Your task to perform on an android device: install app "Walmart Shopping & Grocery" Image 0: 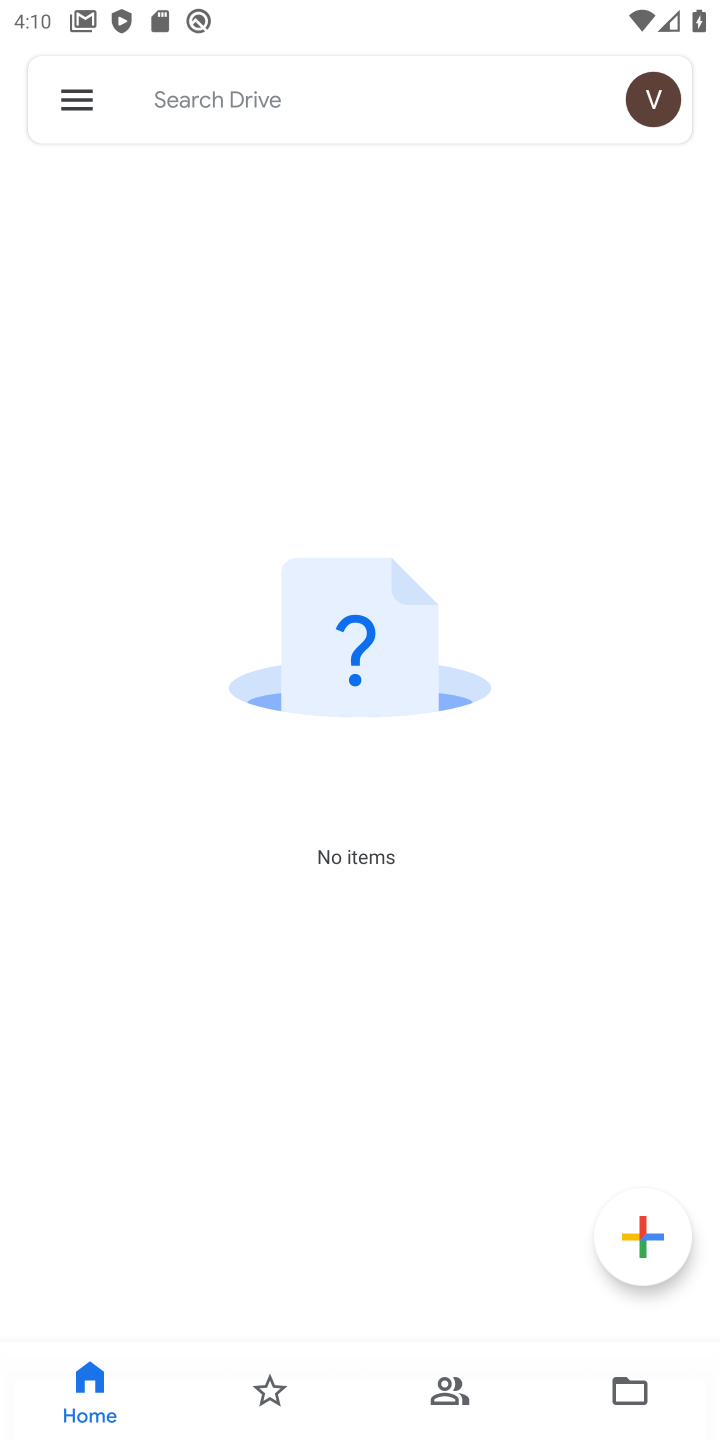
Step 0: press home button
Your task to perform on an android device: install app "Walmart Shopping & Grocery" Image 1: 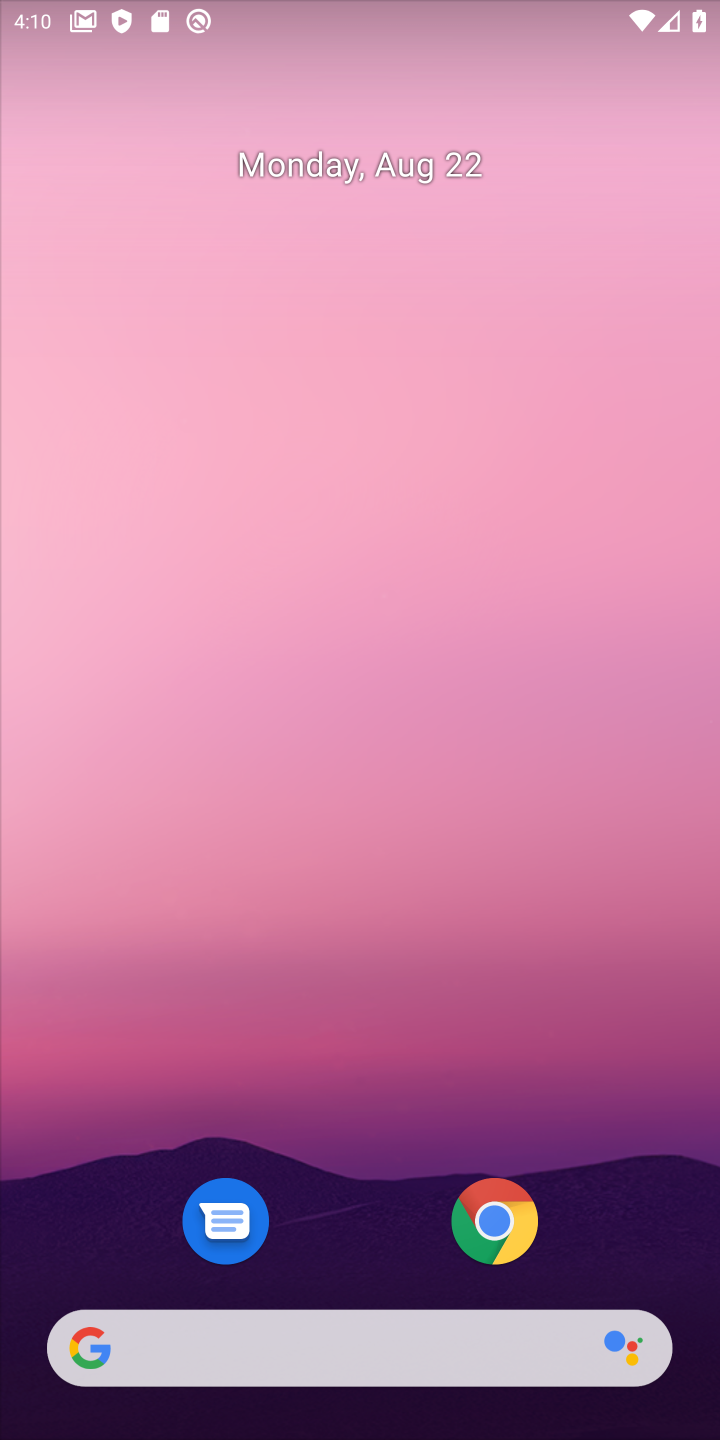
Step 1: drag from (422, 441) to (452, 225)
Your task to perform on an android device: install app "Walmart Shopping & Grocery" Image 2: 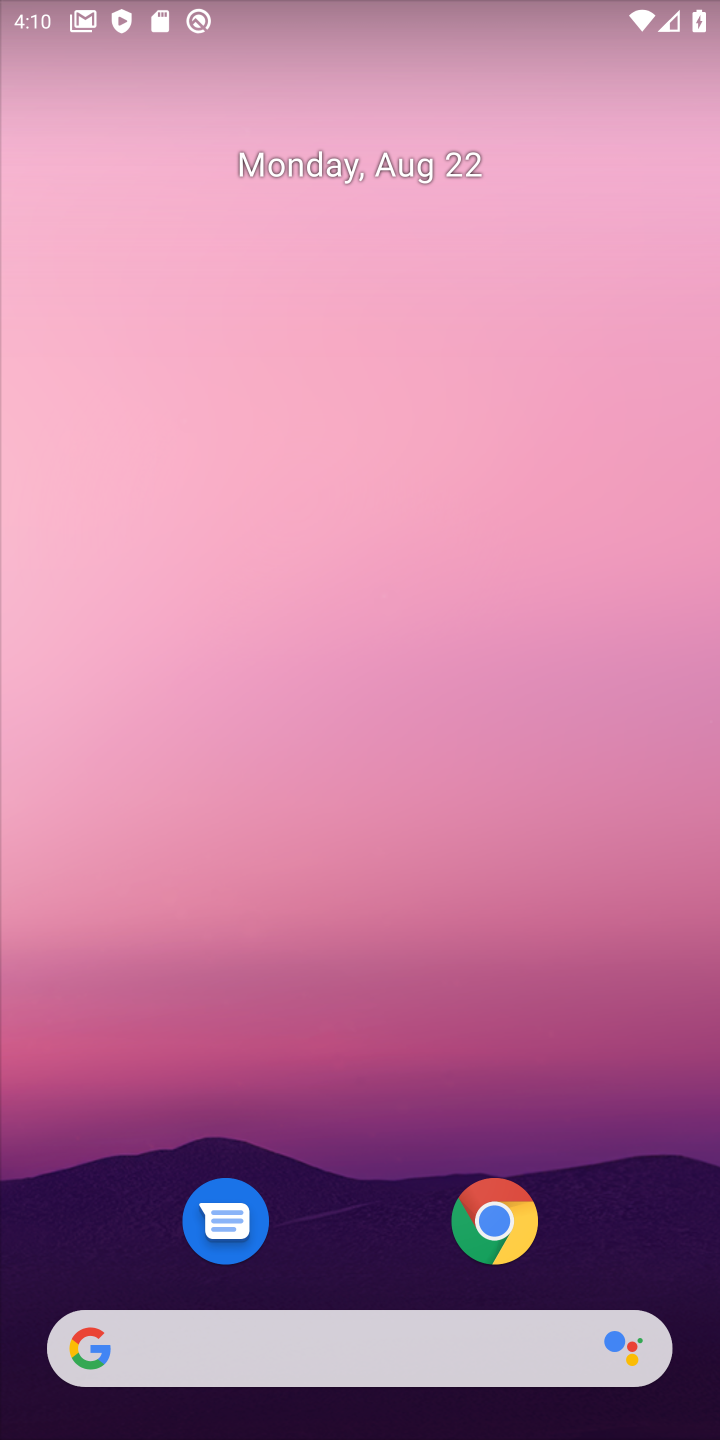
Step 2: drag from (370, 1316) to (523, 190)
Your task to perform on an android device: install app "Walmart Shopping & Grocery" Image 3: 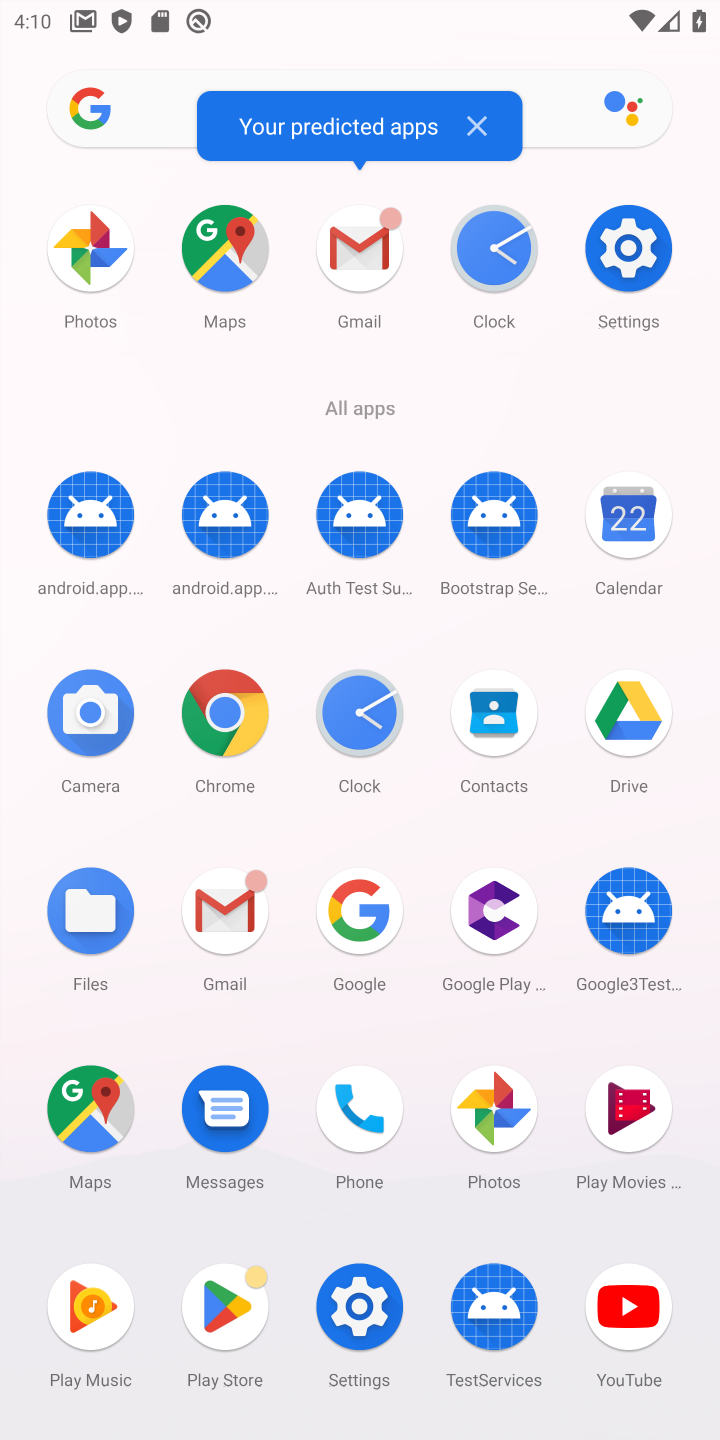
Step 3: click (236, 1311)
Your task to perform on an android device: install app "Walmart Shopping & Grocery" Image 4: 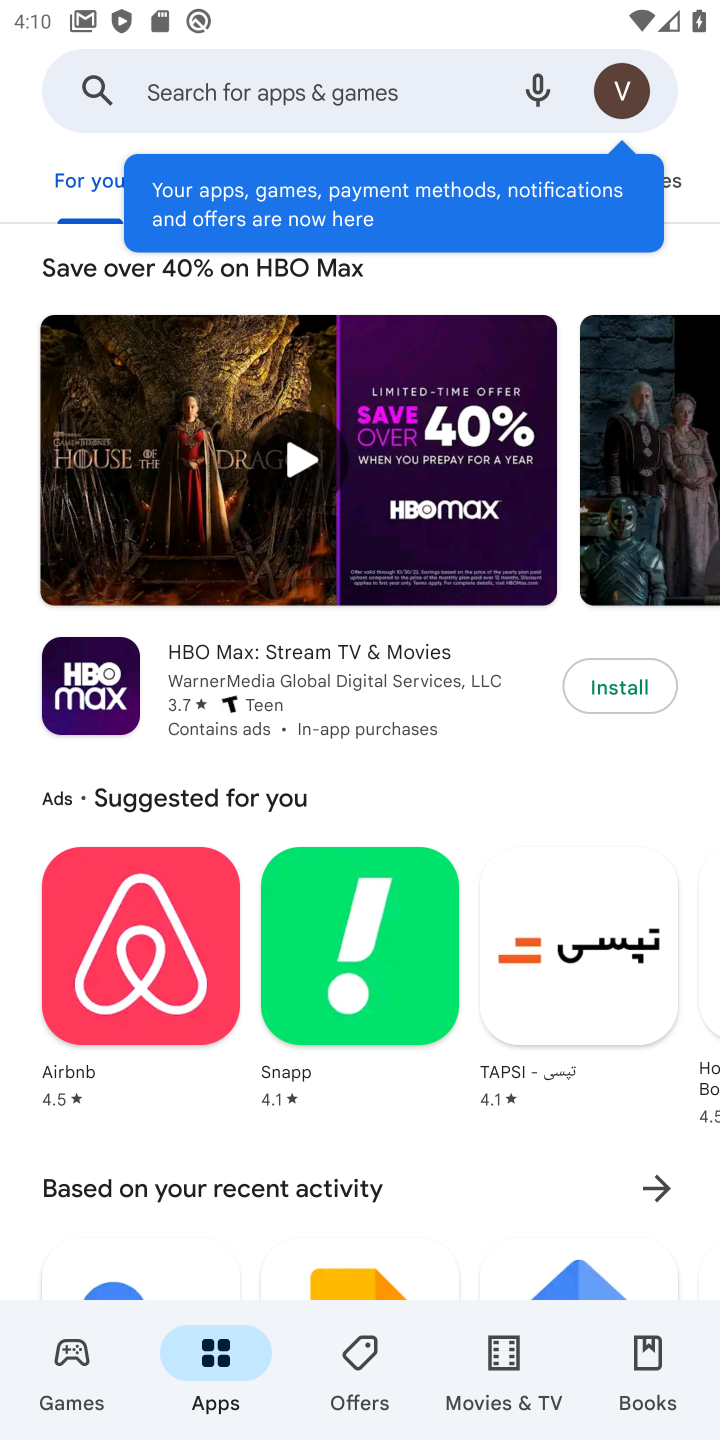
Step 4: click (259, 93)
Your task to perform on an android device: install app "Walmart Shopping & Grocery" Image 5: 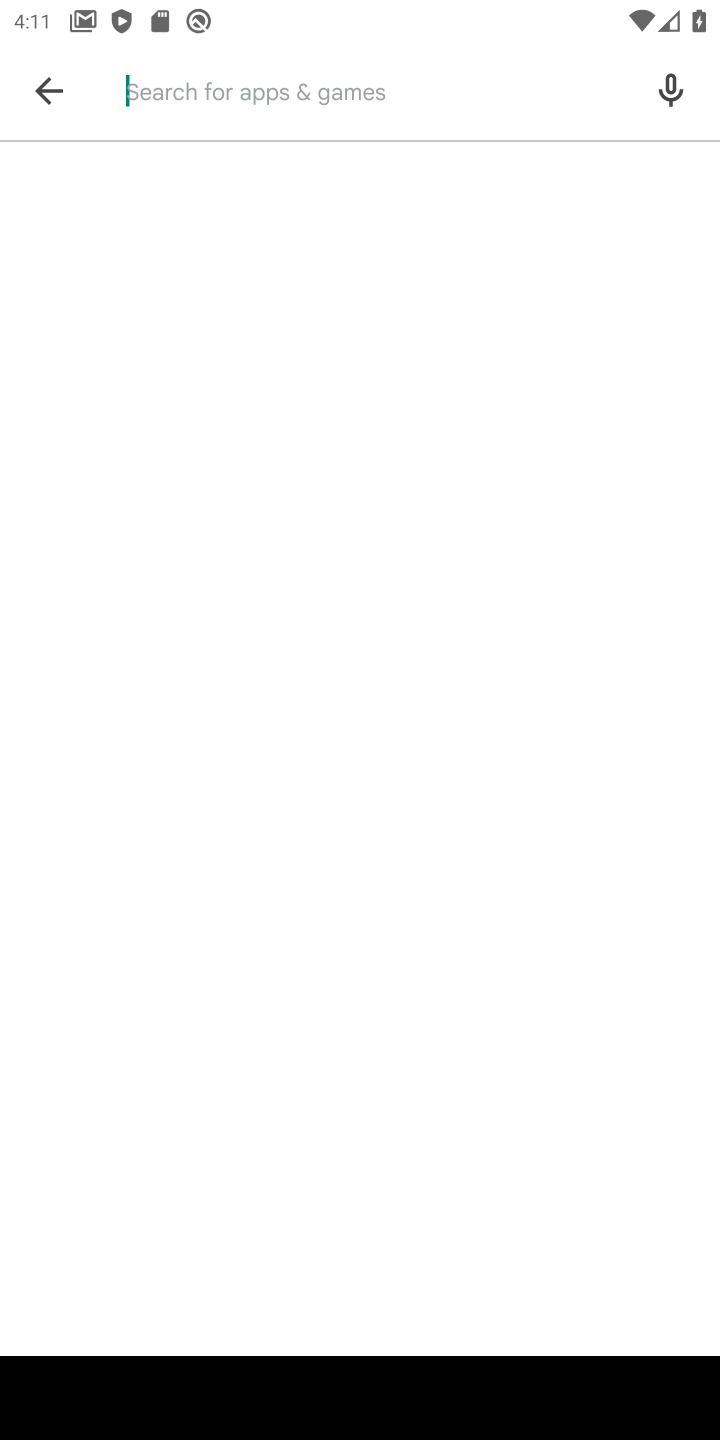
Step 5: type "Walmart Shopping & Grocery"
Your task to perform on an android device: install app "Walmart Shopping & Grocery" Image 6: 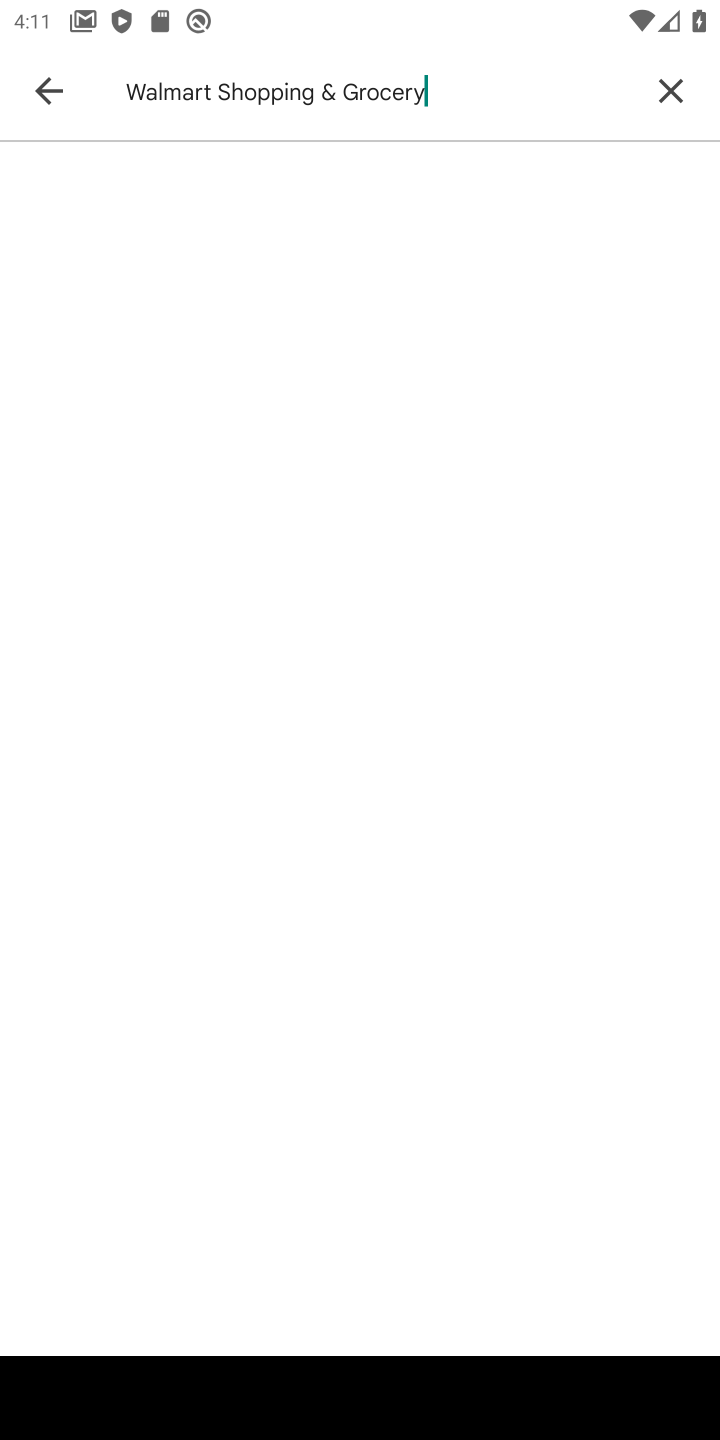
Step 6: press enter
Your task to perform on an android device: install app "Walmart Shopping & Grocery" Image 7: 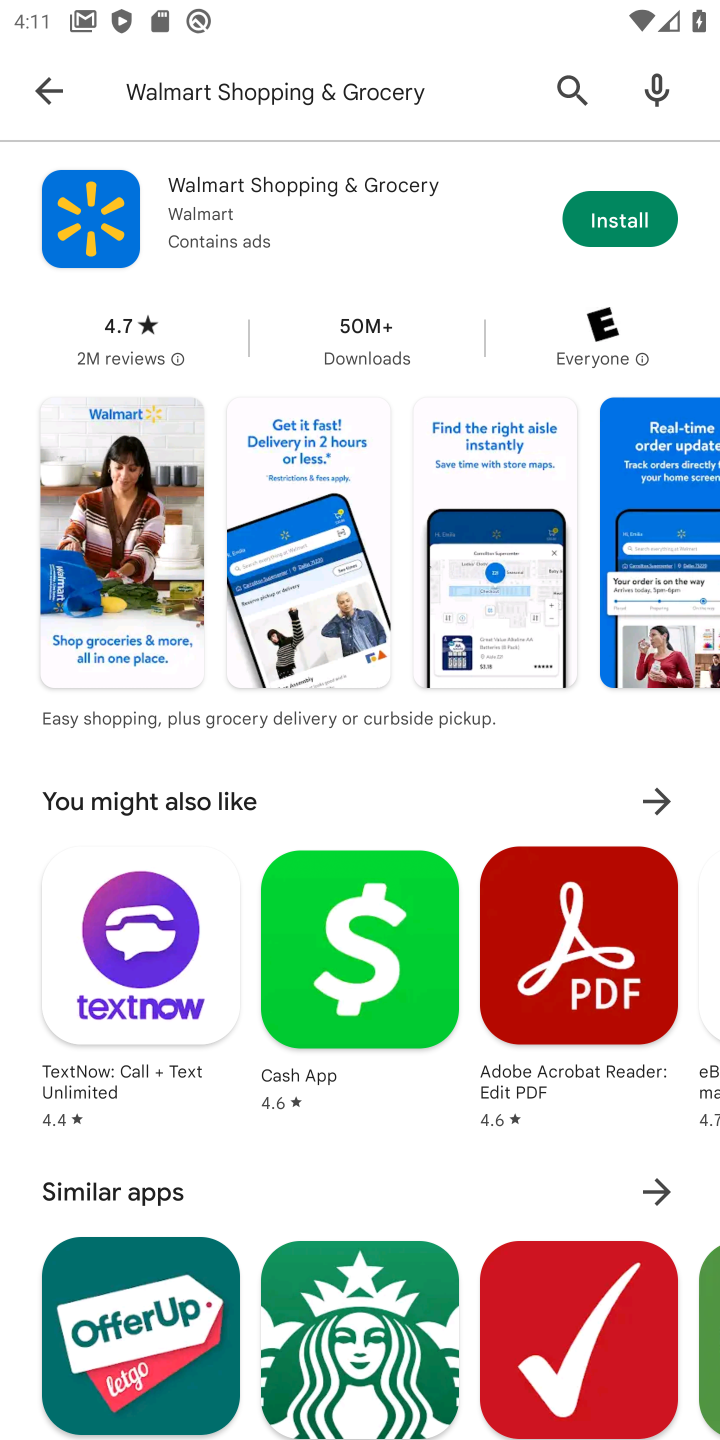
Step 7: click (651, 233)
Your task to perform on an android device: install app "Walmart Shopping & Grocery" Image 8: 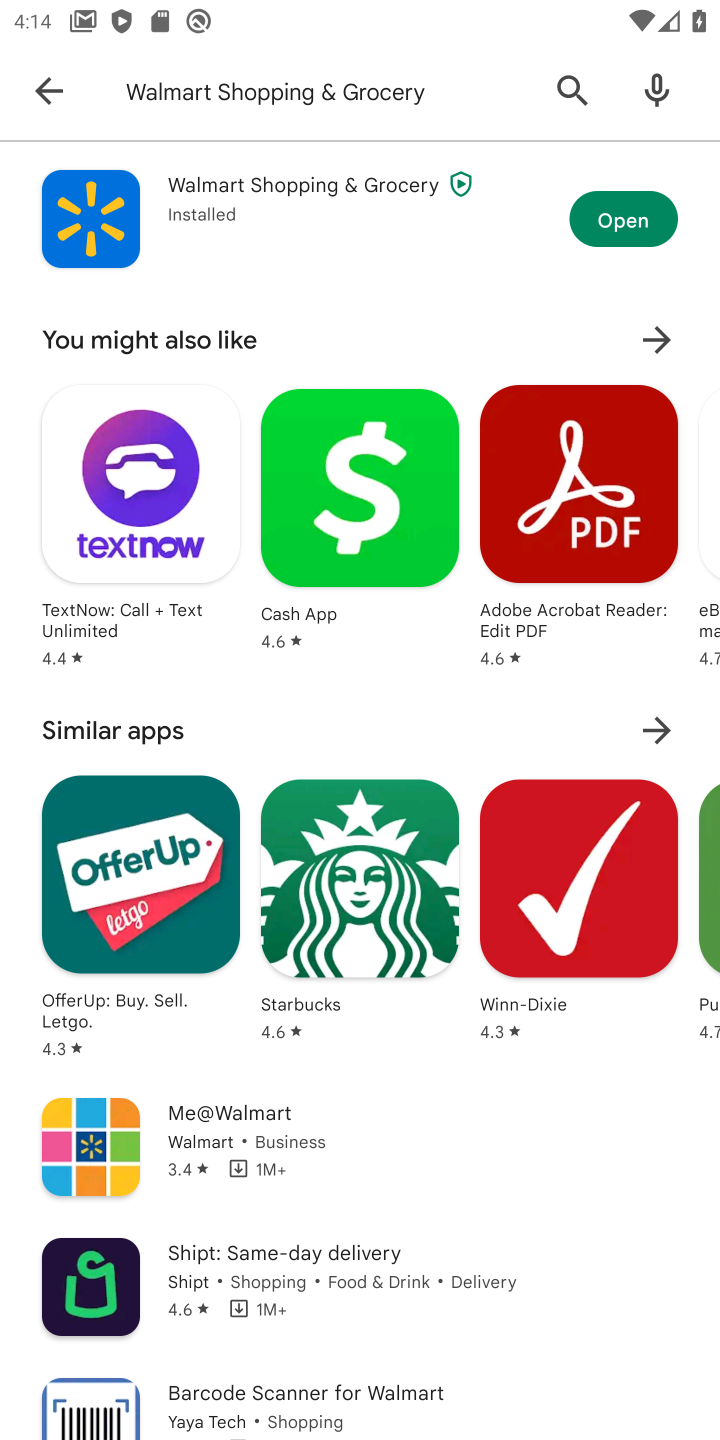
Step 8: click (582, 238)
Your task to perform on an android device: install app "Walmart Shopping & Grocery" Image 9: 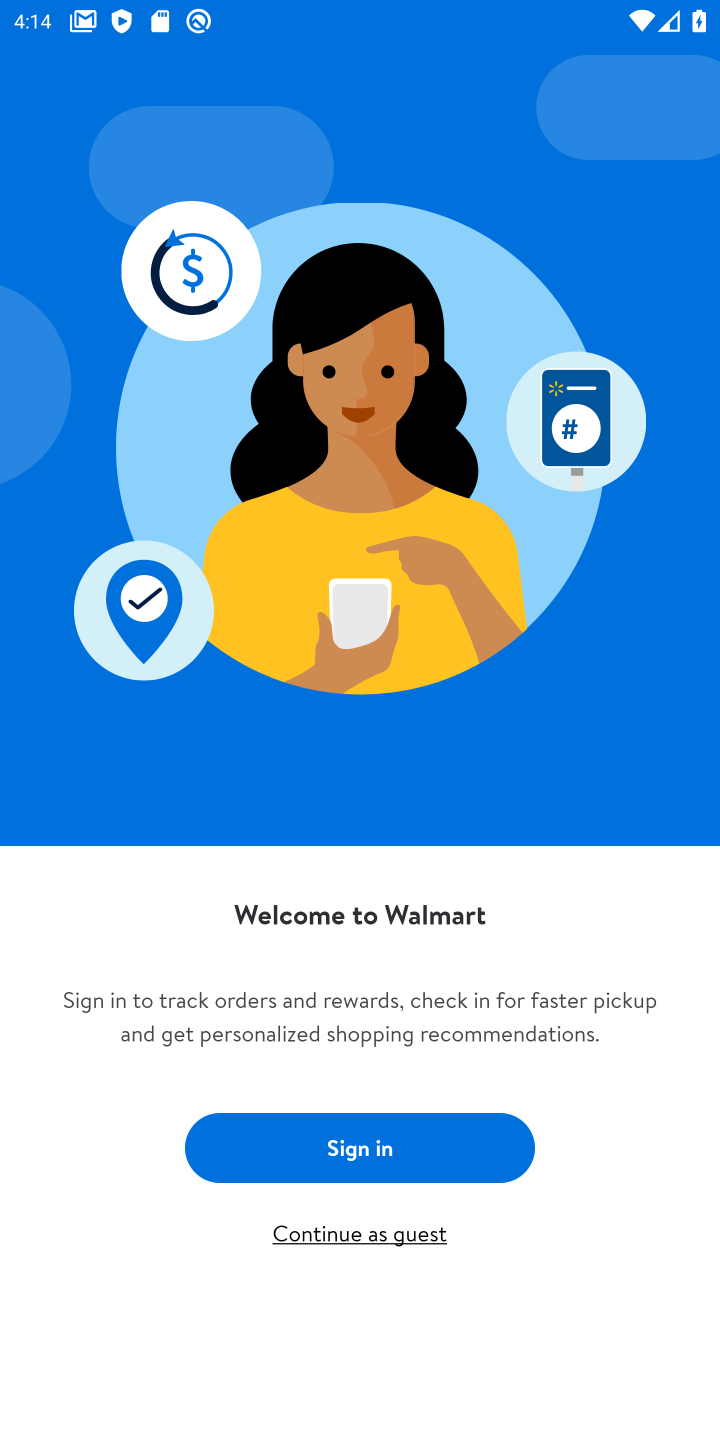
Step 9: task complete